Your task to perform on an android device: Open Maps and search for coffee Image 0: 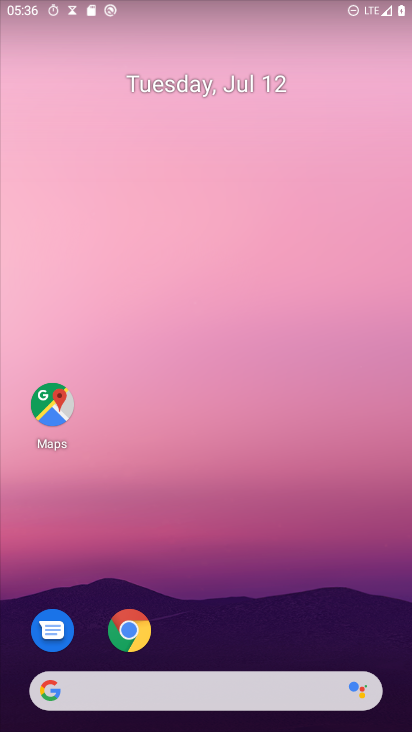
Step 0: drag from (331, 658) to (402, 65)
Your task to perform on an android device: Open Maps and search for coffee Image 1: 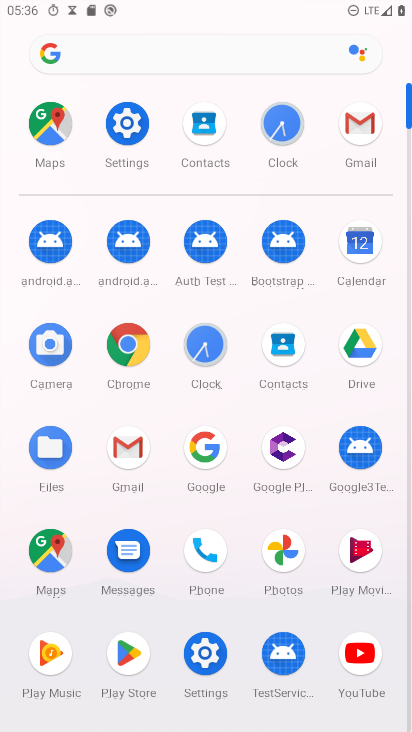
Step 1: click (55, 546)
Your task to perform on an android device: Open Maps and search for coffee Image 2: 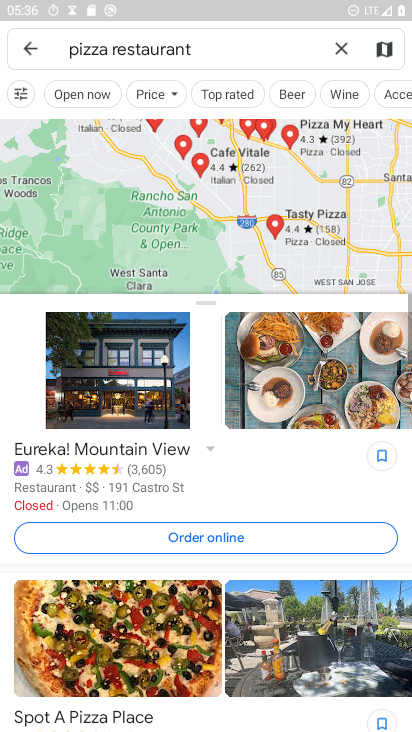
Step 2: click (343, 45)
Your task to perform on an android device: Open Maps and search for coffee Image 3: 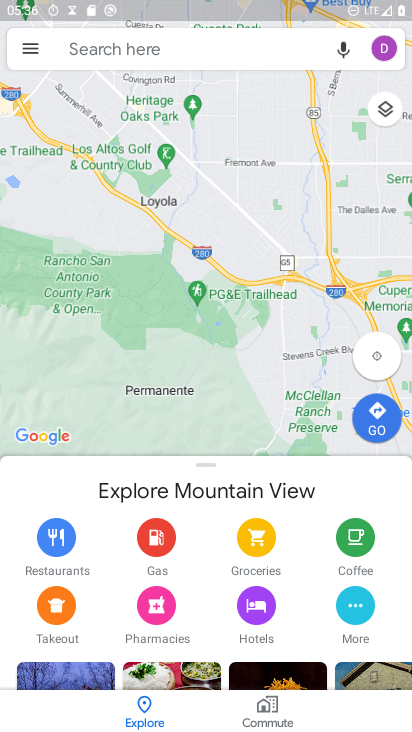
Step 3: click (184, 49)
Your task to perform on an android device: Open Maps and search for coffee Image 4: 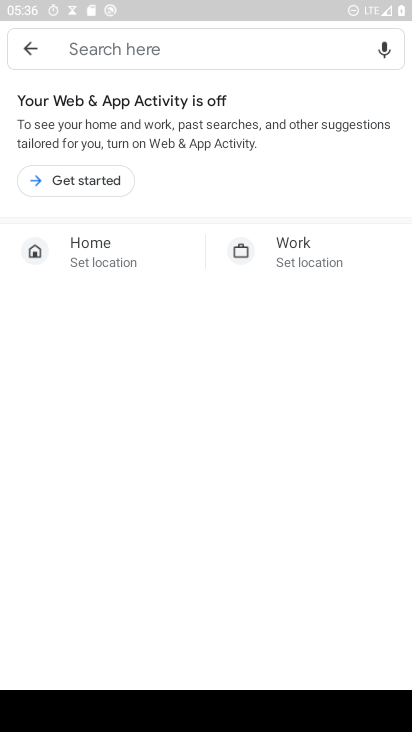
Step 4: type "coffee"
Your task to perform on an android device: Open Maps and search for coffee Image 5: 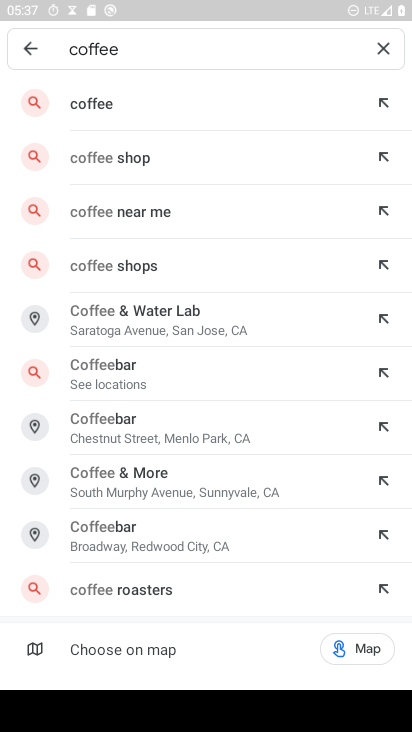
Step 5: click (139, 106)
Your task to perform on an android device: Open Maps and search for coffee Image 6: 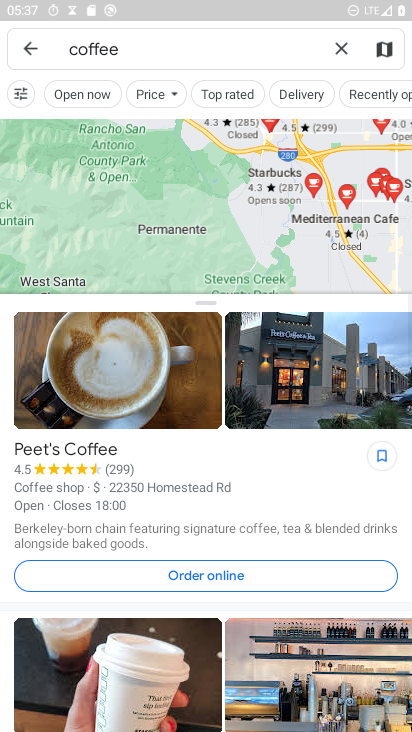
Step 6: task complete